Your task to perform on an android device: turn off sleep mode Image 0: 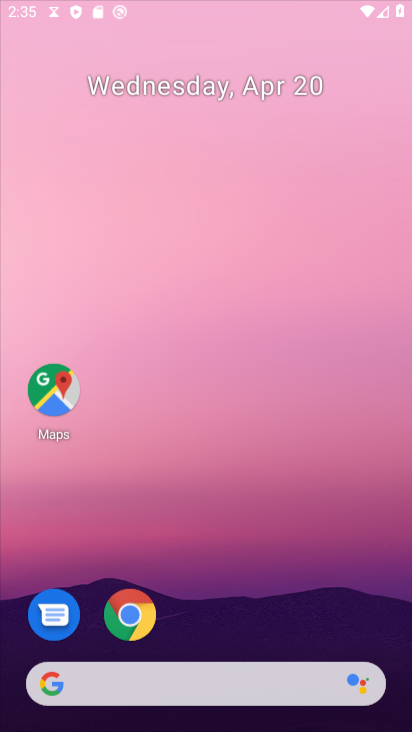
Step 0: click (69, 38)
Your task to perform on an android device: turn off sleep mode Image 1: 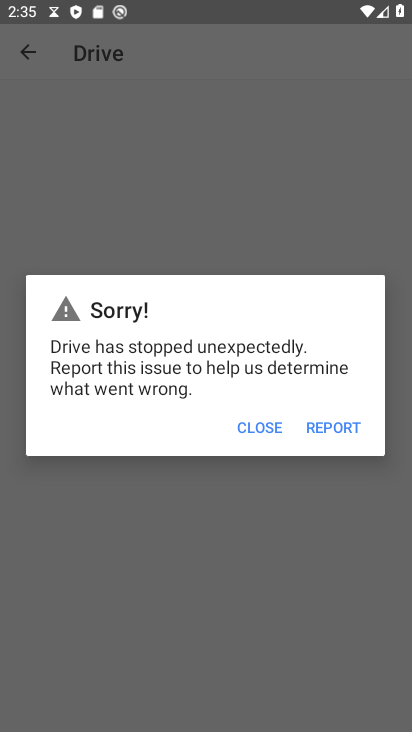
Step 1: press home button
Your task to perform on an android device: turn off sleep mode Image 2: 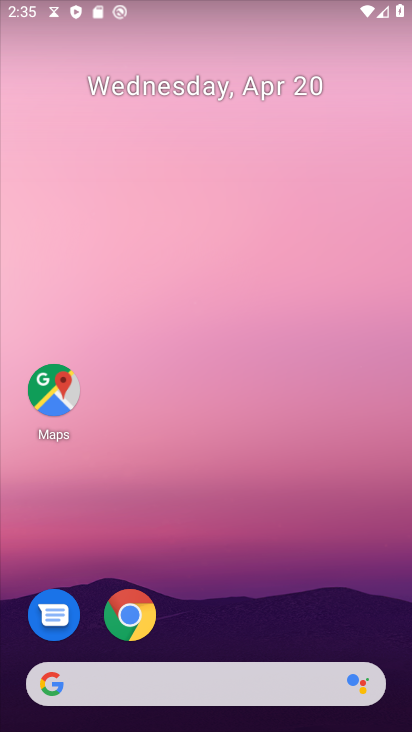
Step 2: drag from (218, 592) to (231, 78)
Your task to perform on an android device: turn off sleep mode Image 3: 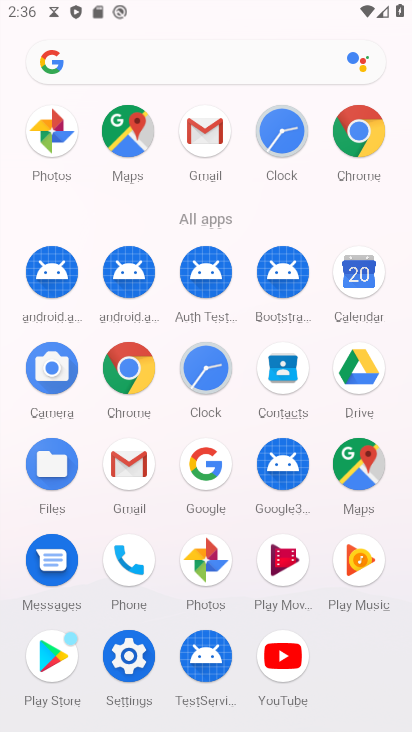
Step 3: click (138, 658)
Your task to perform on an android device: turn off sleep mode Image 4: 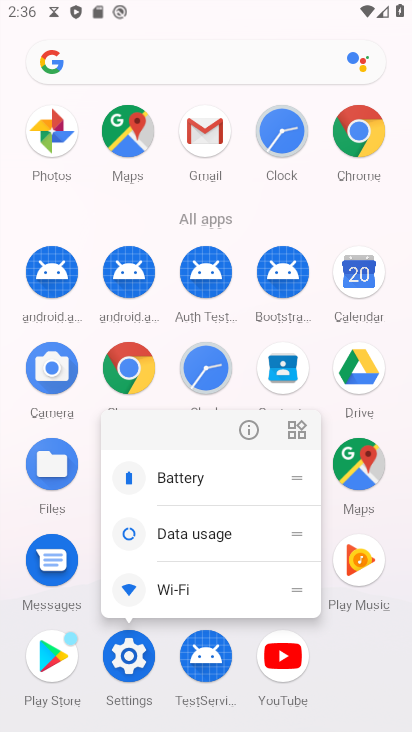
Step 4: click (246, 433)
Your task to perform on an android device: turn off sleep mode Image 5: 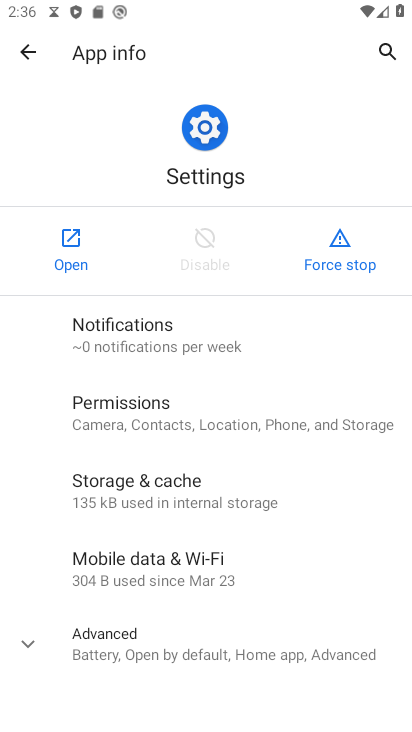
Step 5: click (52, 253)
Your task to perform on an android device: turn off sleep mode Image 6: 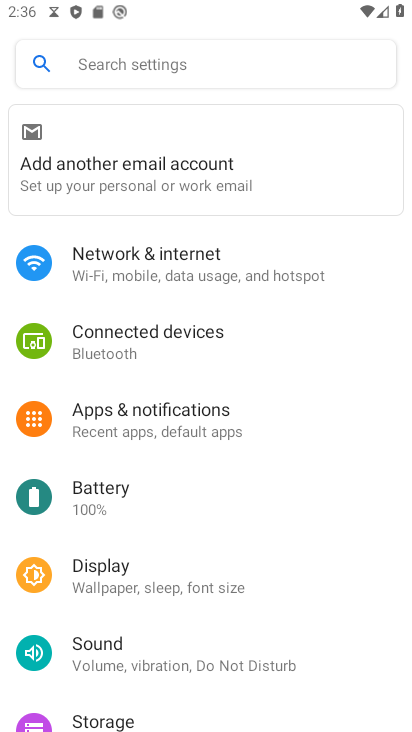
Step 6: click (135, 590)
Your task to perform on an android device: turn off sleep mode Image 7: 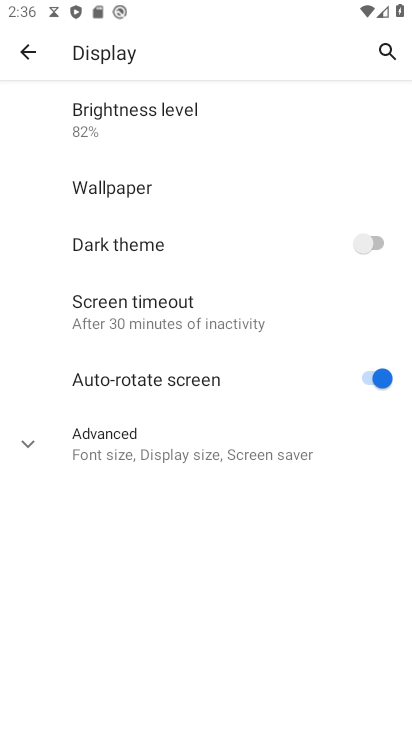
Step 7: click (149, 305)
Your task to perform on an android device: turn off sleep mode Image 8: 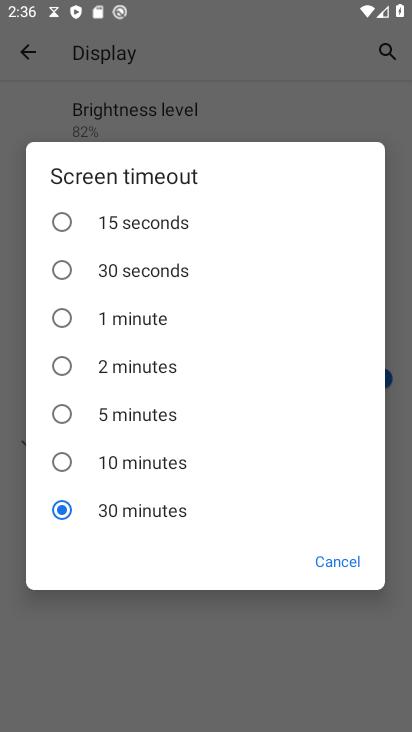
Step 8: task complete